Your task to perform on an android device: open chrome privacy settings Image 0: 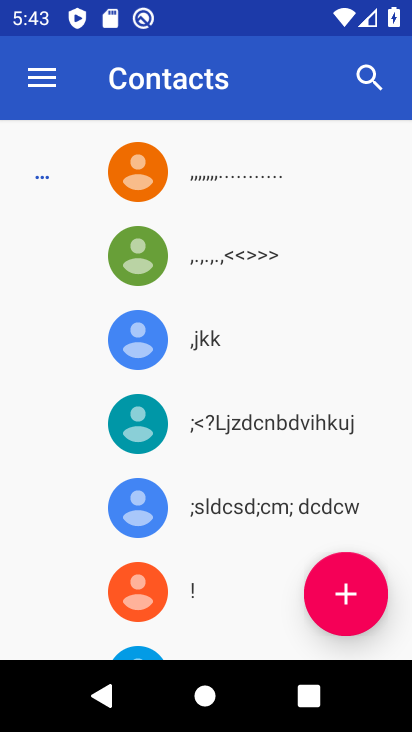
Step 0: press home button
Your task to perform on an android device: open chrome privacy settings Image 1: 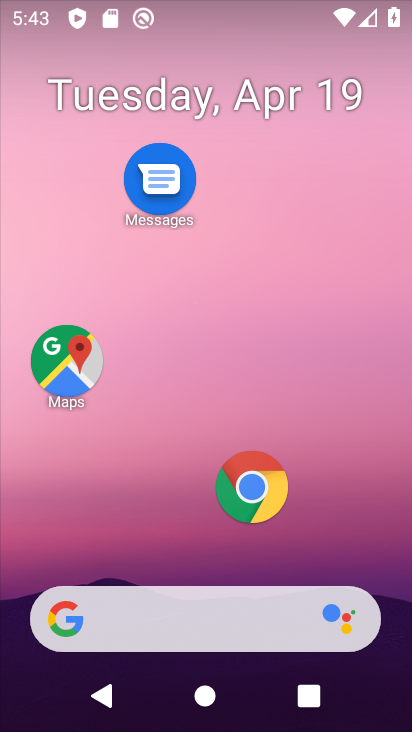
Step 1: drag from (292, 563) to (305, 7)
Your task to perform on an android device: open chrome privacy settings Image 2: 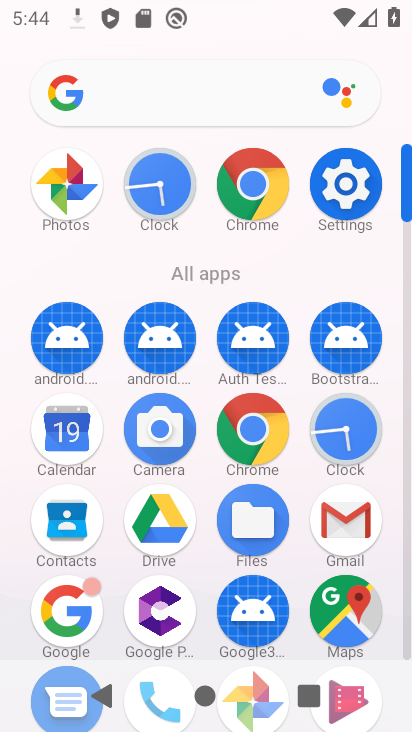
Step 2: click (342, 178)
Your task to perform on an android device: open chrome privacy settings Image 3: 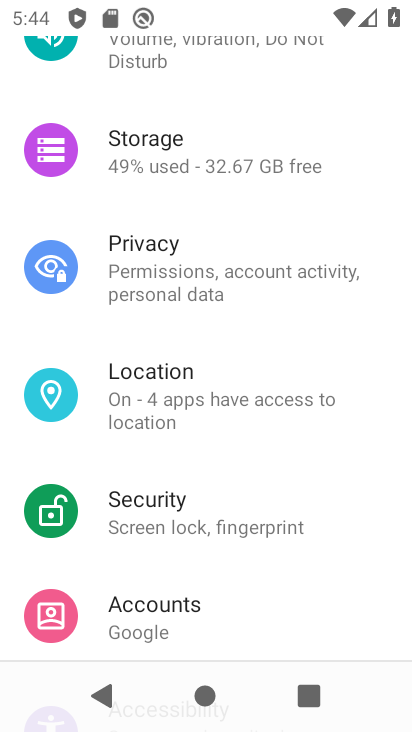
Step 3: click (189, 243)
Your task to perform on an android device: open chrome privacy settings Image 4: 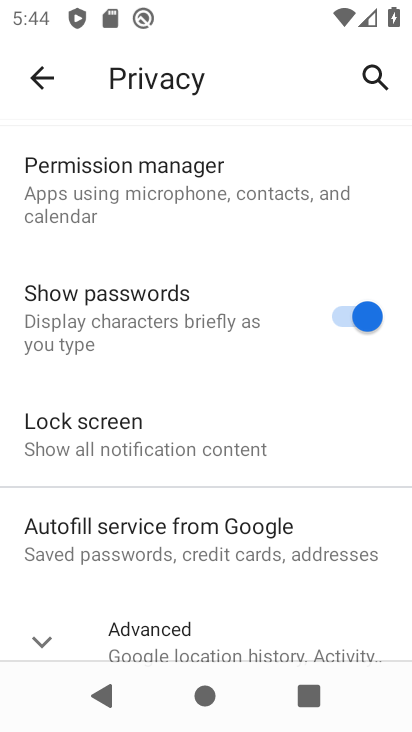
Step 4: click (38, 632)
Your task to perform on an android device: open chrome privacy settings Image 5: 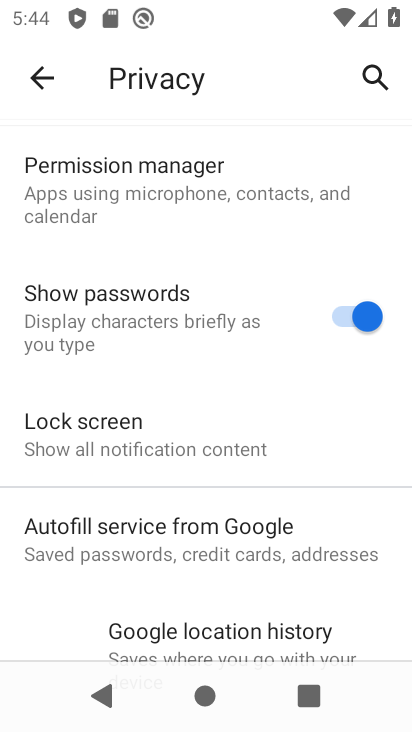
Step 5: task complete